Your task to perform on an android device: Open accessibility settings Image 0: 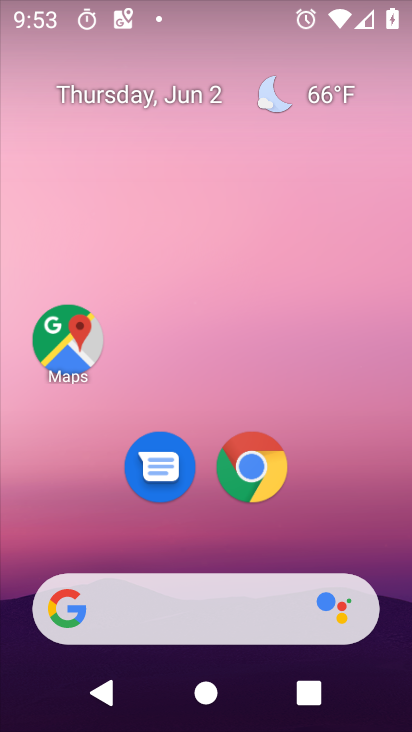
Step 0: drag from (14, 638) to (309, 169)
Your task to perform on an android device: Open accessibility settings Image 1: 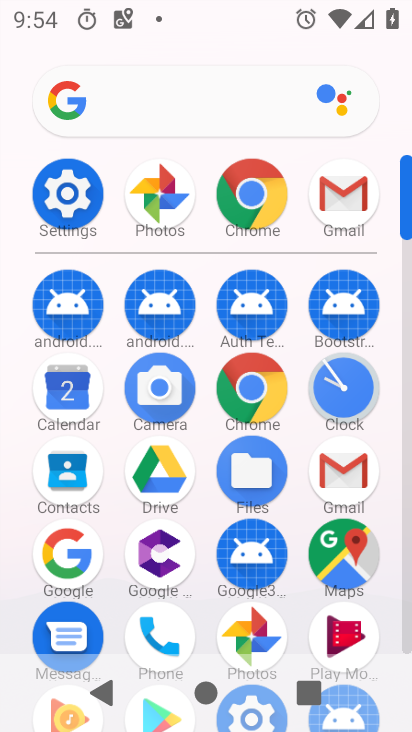
Step 1: click (69, 208)
Your task to perform on an android device: Open accessibility settings Image 2: 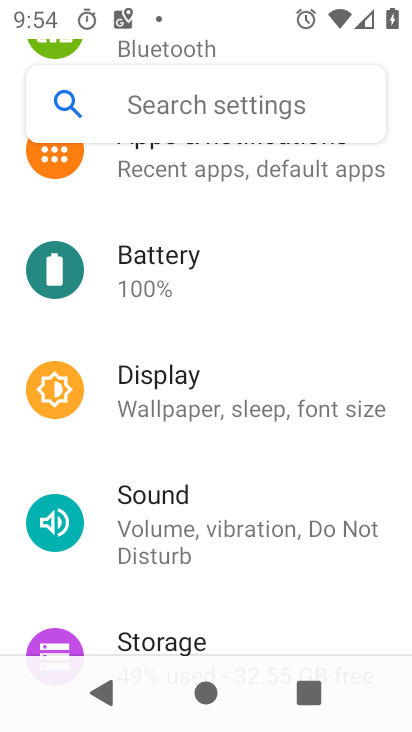
Step 2: drag from (5, 584) to (294, 128)
Your task to perform on an android device: Open accessibility settings Image 3: 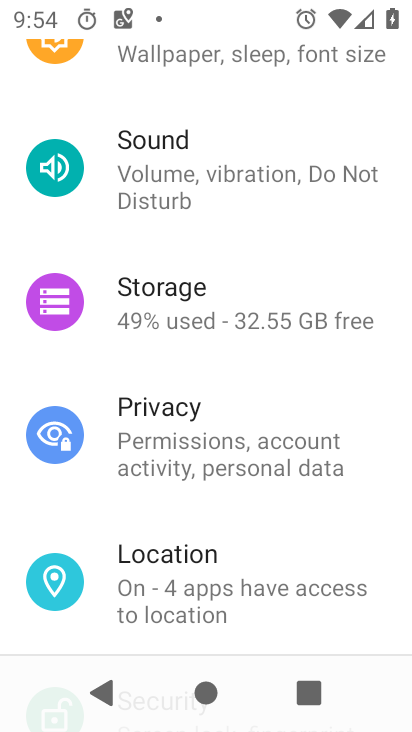
Step 3: drag from (6, 527) to (318, 128)
Your task to perform on an android device: Open accessibility settings Image 4: 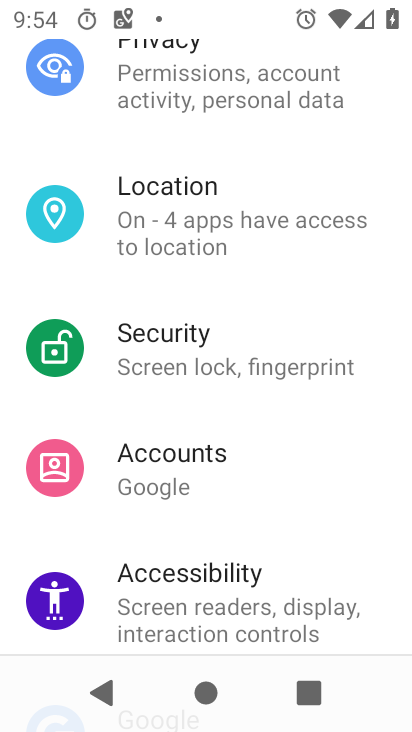
Step 4: click (87, 609)
Your task to perform on an android device: Open accessibility settings Image 5: 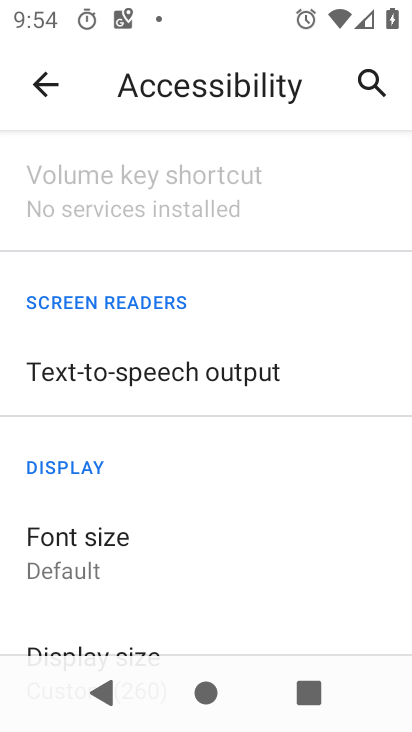
Step 5: task complete